Your task to perform on an android device: Go to CNN.com Image 0: 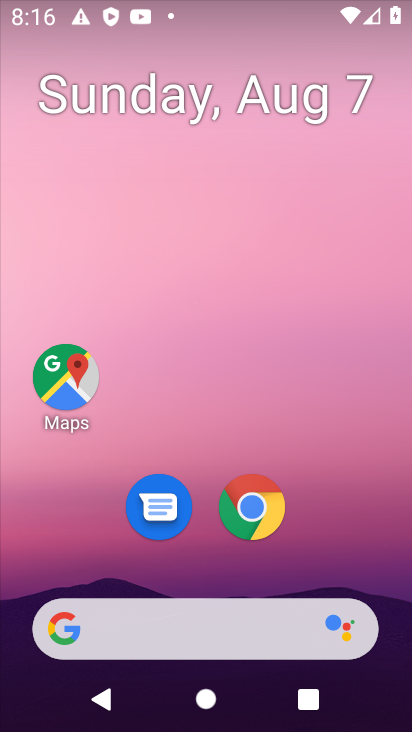
Step 0: press home button
Your task to perform on an android device: Go to CNN.com Image 1: 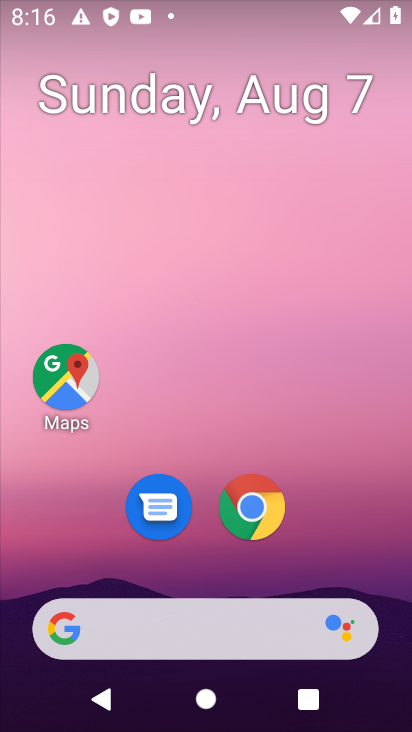
Step 1: click (255, 511)
Your task to perform on an android device: Go to CNN.com Image 2: 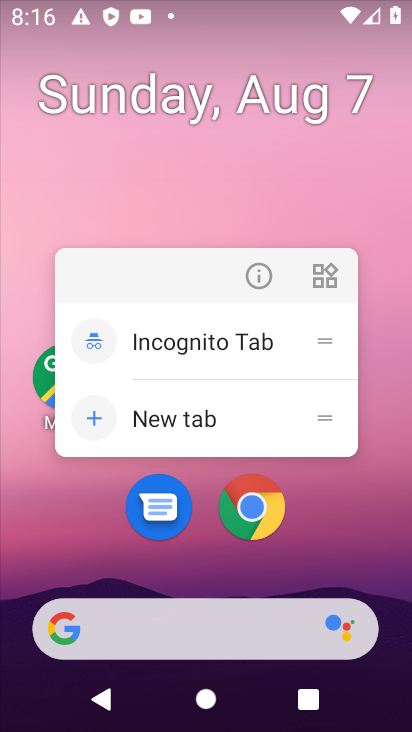
Step 2: click (255, 511)
Your task to perform on an android device: Go to CNN.com Image 3: 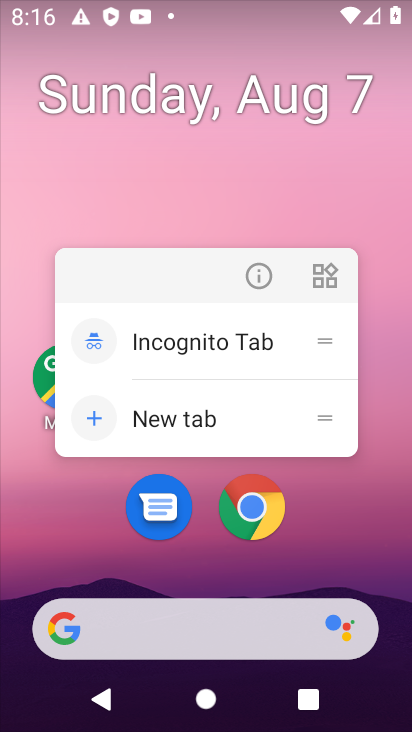
Step 3: click (255, 511)
Your task to perform on an android device: Go to CNN.com Image 4: 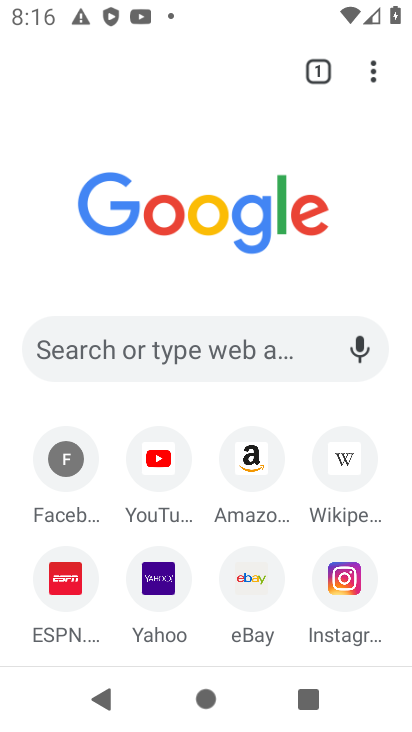
Step 4: click (166, 344)
Your task to perform on an android device: Go to CNN.com Image 5: 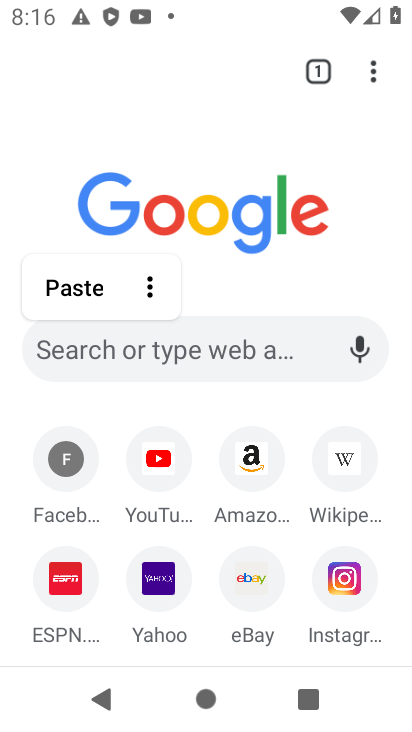
Step 5: type "CNN.com"
Your task to perform on an android device: Go to CNN.com Image 6: 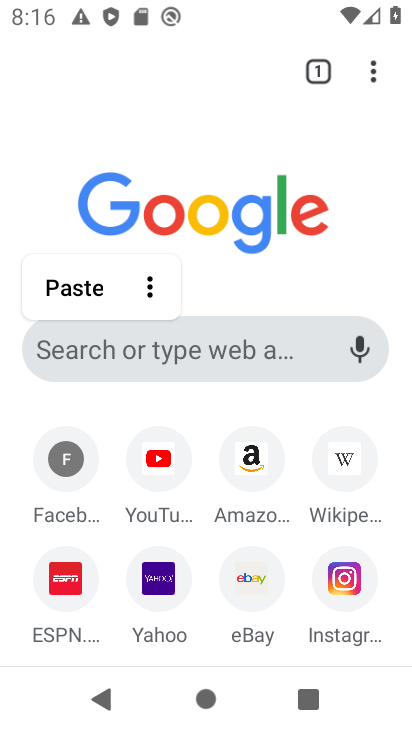
Step 6: click (101, 350)
Your task to perform on an android device: Go to CNN.com Image 7: 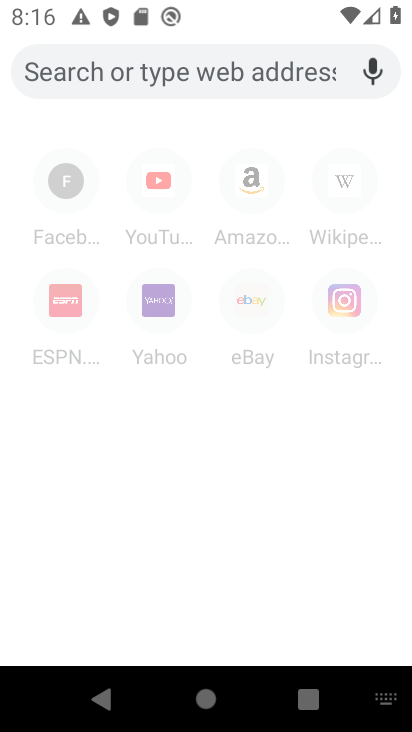
Step 7: type "CNN.com"
Your task to perform on an android device: Go to CNN.com Image 8: 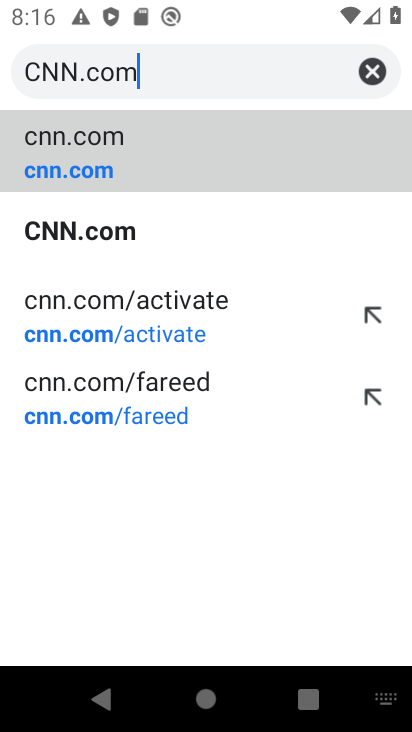
Step 8: click (82, 141)
Your task to perform on an android device: Go to CNN.com Image 9: 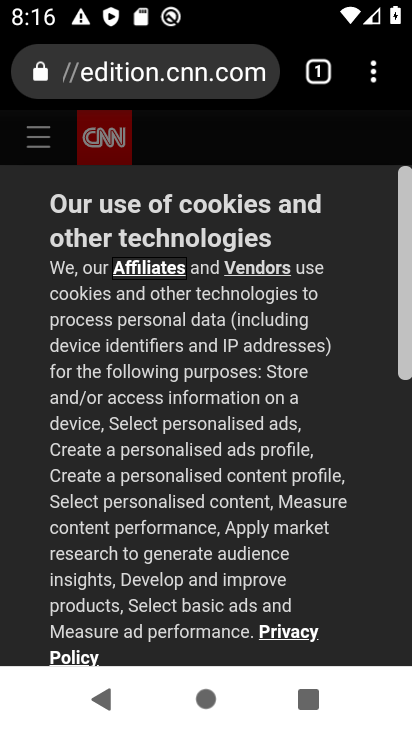
Step 9: drag from (205, 604) to (345, 165)
Your task to perform on an android device: Go to CNN.com Image 10: 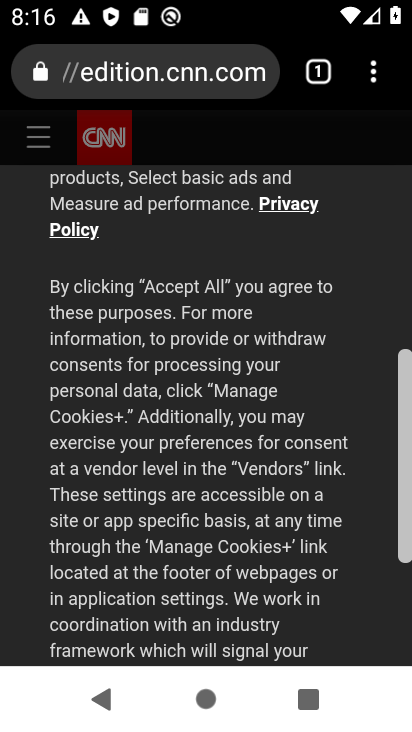
Step 10: drag from (240, 606) to (363, 127)
Your task to perform on an android device: Go to CNN.com Image 11: 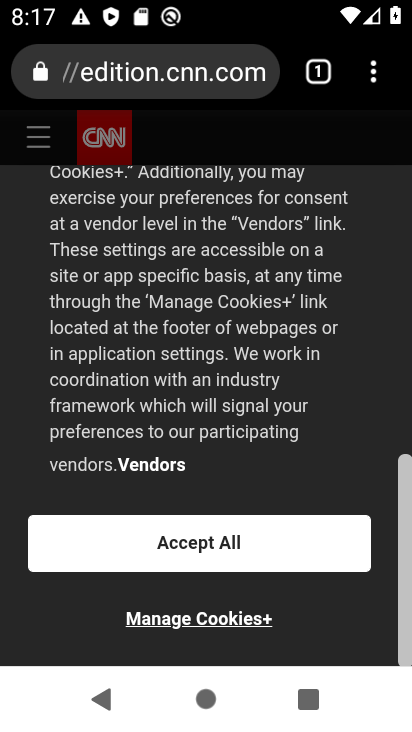
Step 11: click (219, 550)
Your task to perform on an android device: Go to CNN.com Image 12: 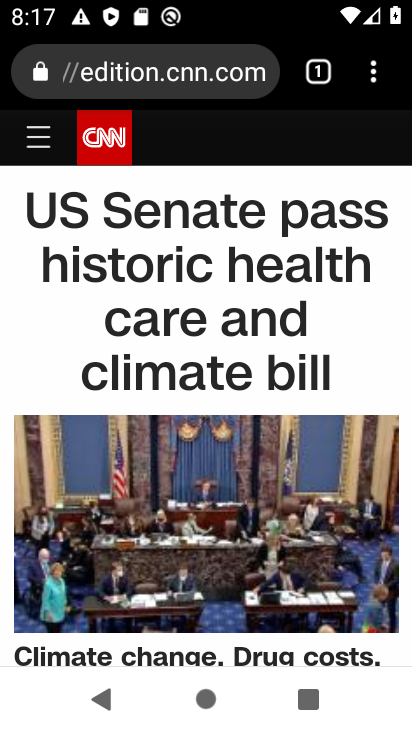
Step 12: task complete